Your task to perform on an android device: toggle show notifications on the lock screen Image 0: 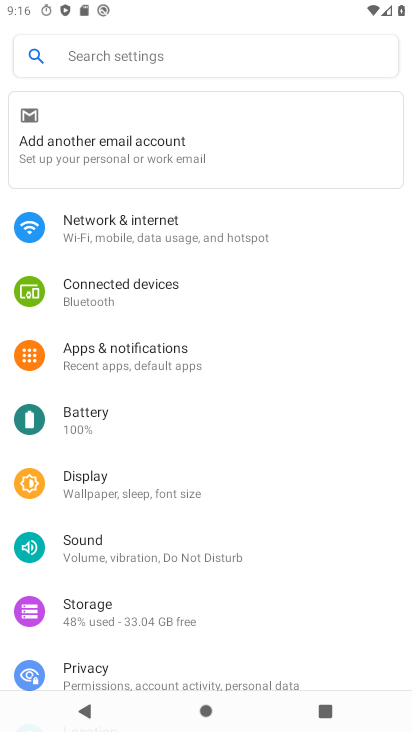
Step 0: press home button
Your task to perform on an android device: toggle show notifications on the lock screen Image 1: 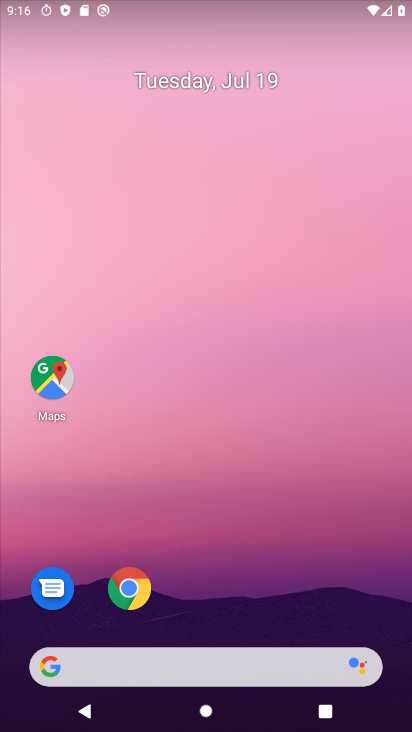
Step 1: drag from (203, 614) to (192, 77)
Your task to perform on an android device: toggle show notifications on the lock screen Image 2: 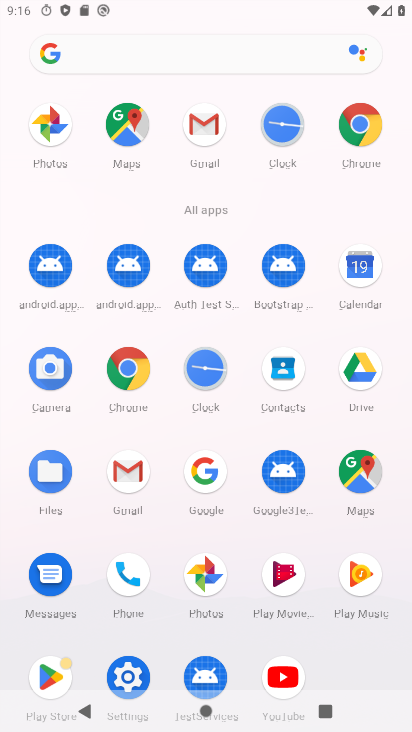
Step 2: click (128, 666)
Your task to perform on an android device: toggle show notifications on the lock screen Image 3: 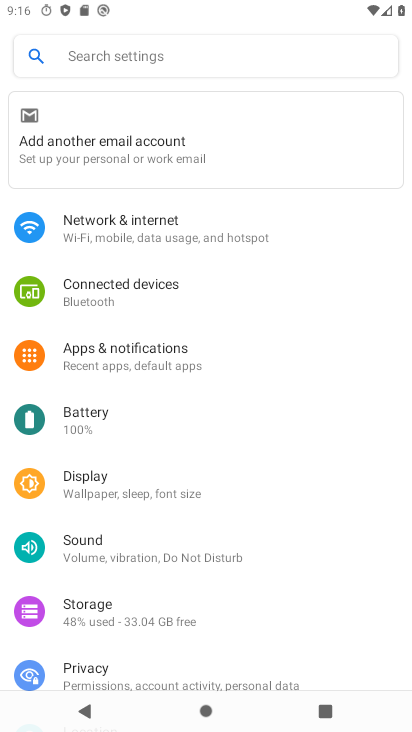
Step 3: click (177, 354)
Your task to perform on an android device: toggle show notifications on the lock screen Image 4: 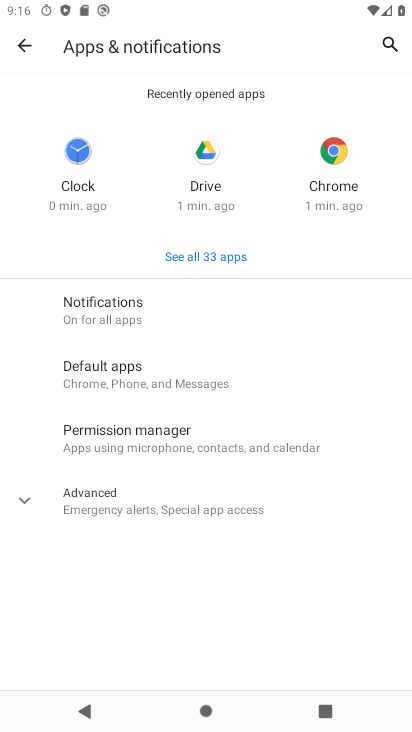
Step 4: click (157, 309)
Your task to perform on an android device: toggle show notifications on the lock screen Image 5: 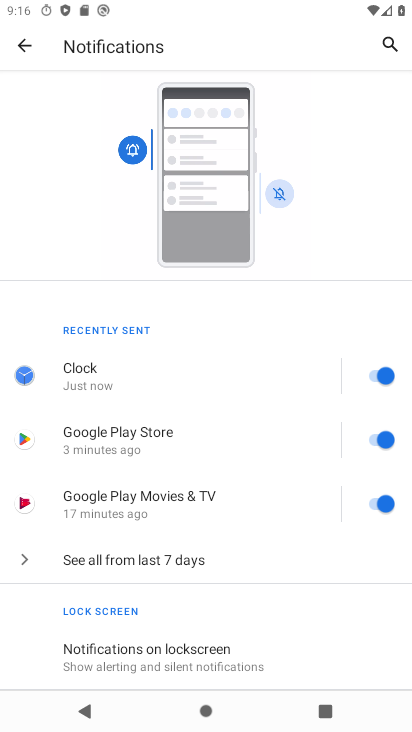
Step 5: click (233, 650)
Your task to perform on an android device: toggle show notifications on the lock screen Image 6: 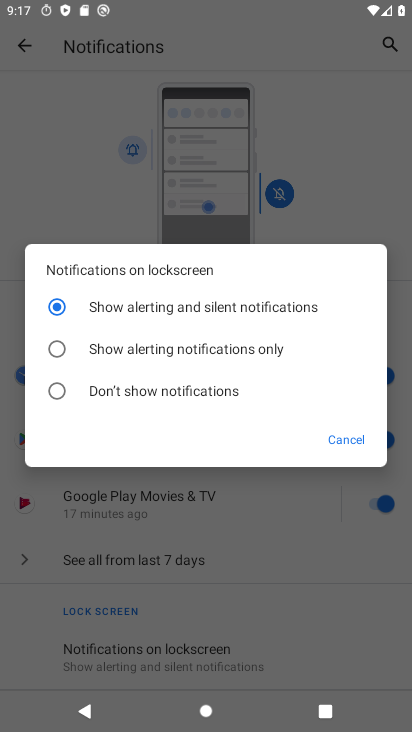
Step 6: click (55, 347)
Your task to perform on an android device: toggle show notifications on the lock screen Image 7: 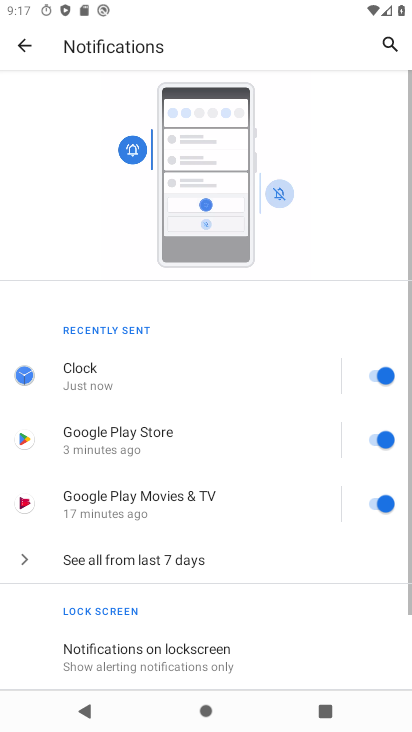
Step 7: task complete